Your task to perform on an android device: Open Yahoo.com Image 0: 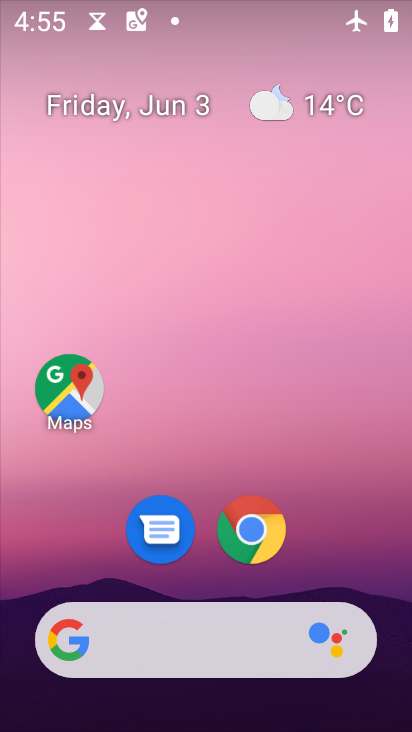
Step 0: press home button
Your task to perform on an android device: Open Yahoo.com Image 1: 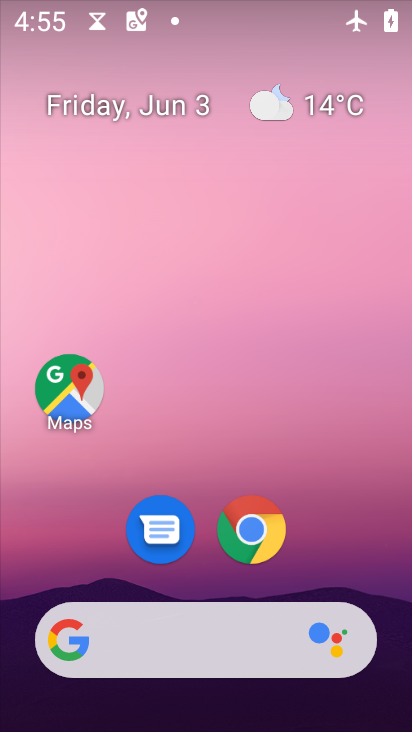
Step 1: drag from (320, 547) to (305, 2)
Your task to perform on an android device: Open Yahoo.com Image 2: 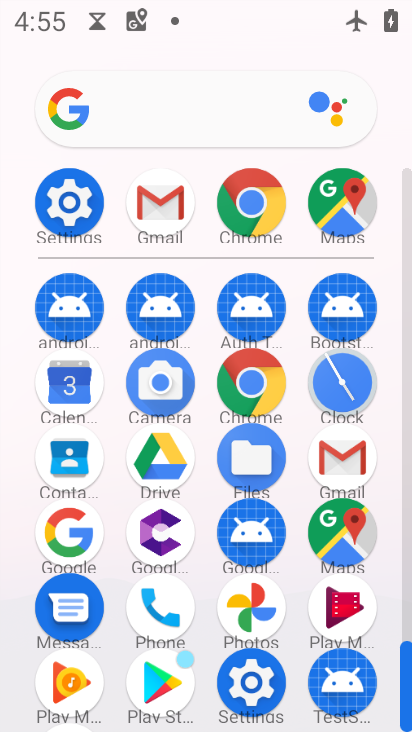
Step 2: click (265, 216)
Your task to perform on an android device: Open Yahoo.com Image 3: 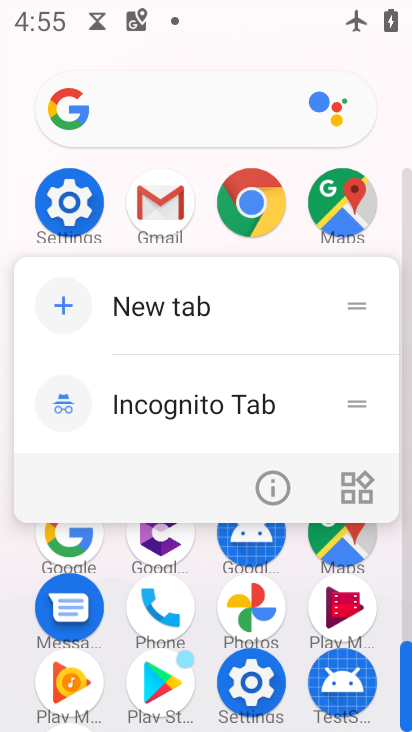
Step 3: click (265, 215)
Your task to perform on an android device: Open Yahoo.com Image 4: 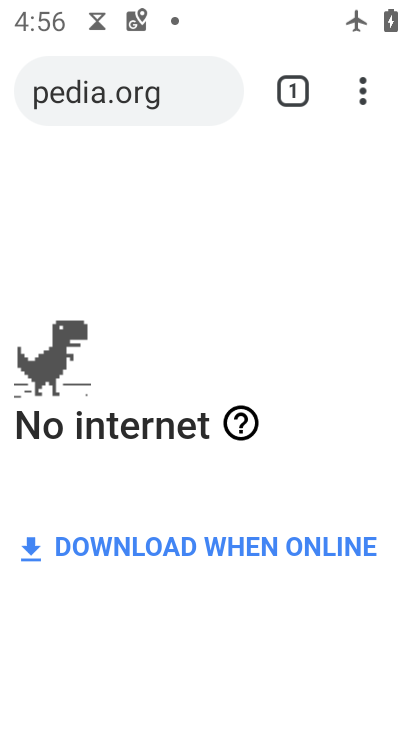
Step 4: task complete